Your task to perform on an android device: Find coffee shops on Maps Image 0: 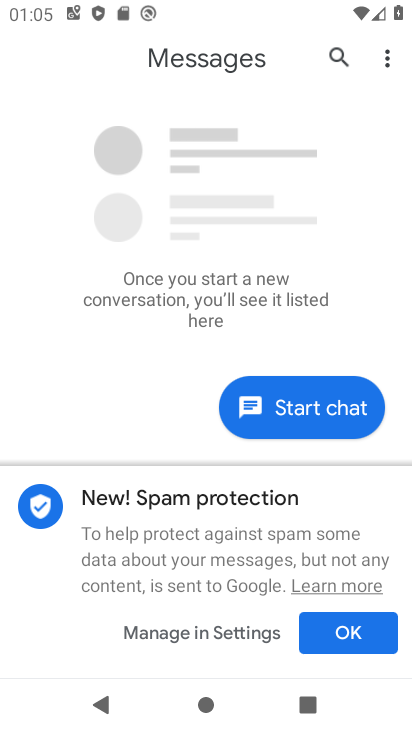
Step 0: press home button
Your task to perform on an android device: Find coffee shops on Maps Image 1: 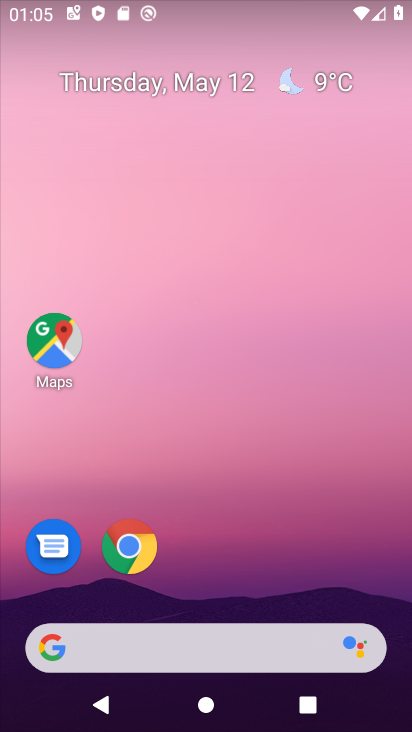
Step 1: click (49, 341)
Your task to perform on an android device: Find coffee shops on Maps Image 2: 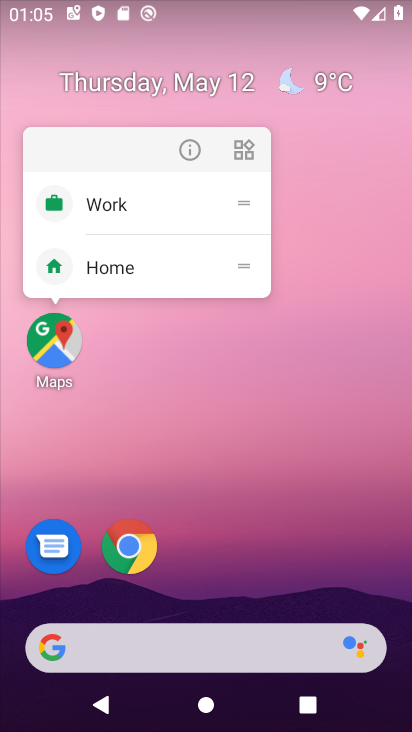
Step 2: click (200, 152)
Your task to perform on an android device: Find coffee shops on Maps Image 3: 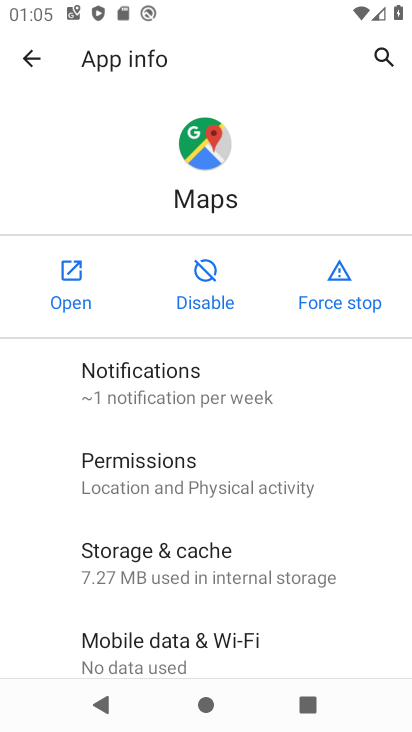
Step 3: click (72, 302)
Your task to perform on an android device: Find coffee shops on Maps Image 4: 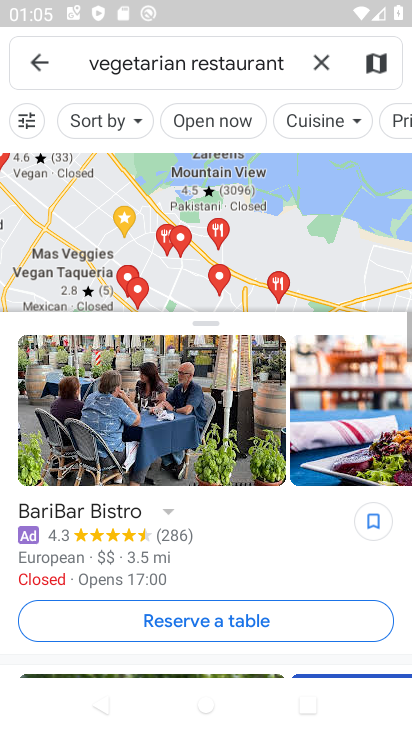
Step 4: click (325, 56)
Your task to perform on an android device: Find coffee shops on Maps Image 5: 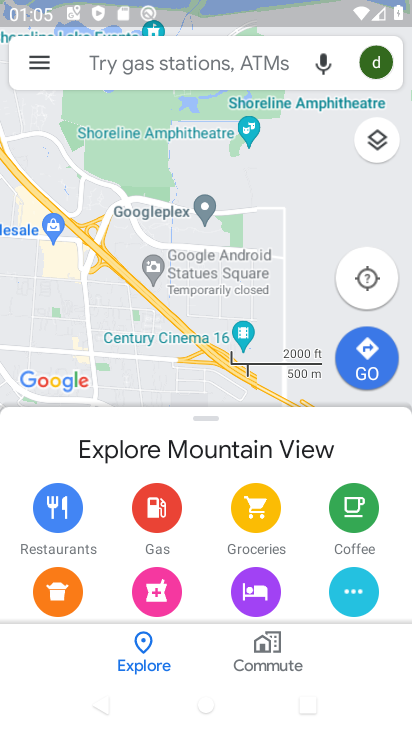
Step 5: click (164, 62)
Your task to perform on an android device: Find coffee shops on Maps Image 6: 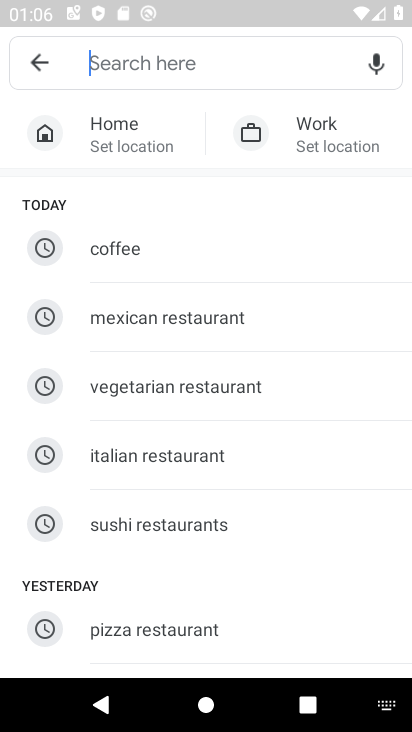
Step 6: type "coffee shops"
Your task to perform on an android device: Find coffee shops on Maps Image 7: 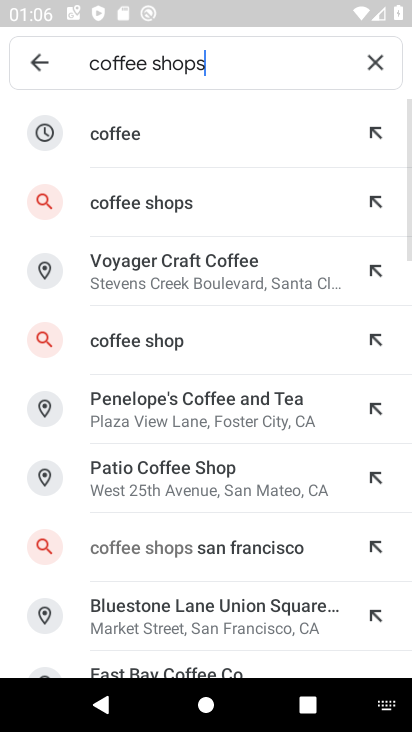
Step 7: click (123, 135)
Your task to perform on an android device: Find coffee shops on Maps Image 8: 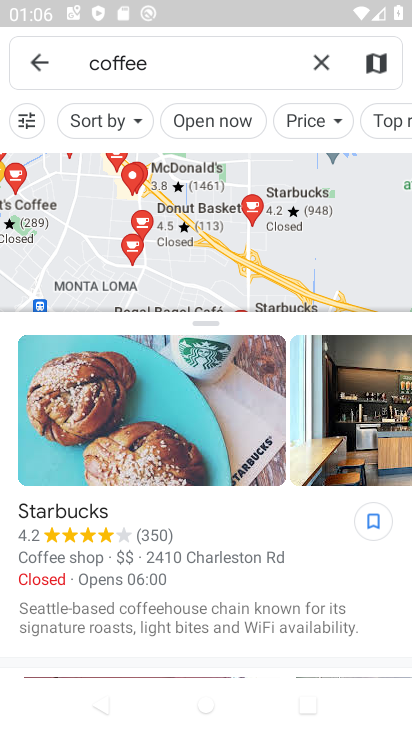
Step 8: task complete